Your task to perform on an android device: refresh tabs in the chrome app Image 0: 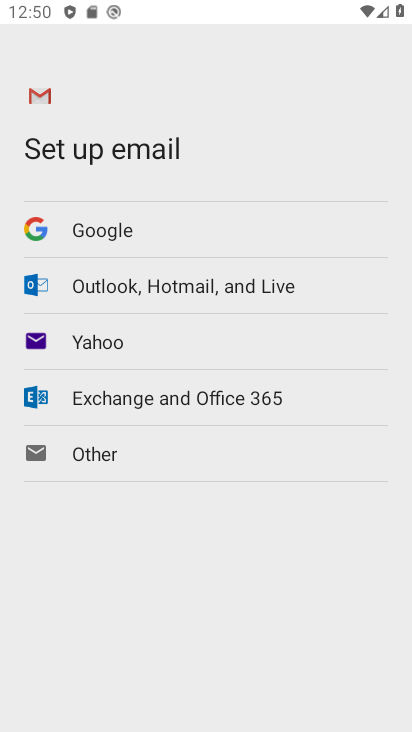
Step 0: press home button
Your task to perform on an android device: refresh tabs in the chrome app Image 1: 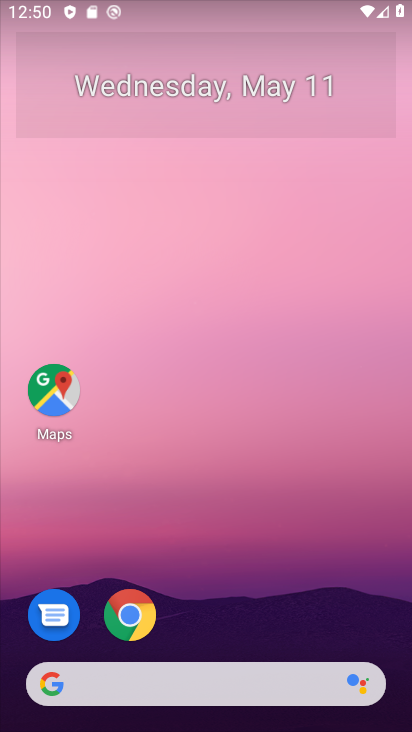
Step 1: click (134, 607)
Your task to perform on an android device: refresh tabs in the chrome app Image 2: 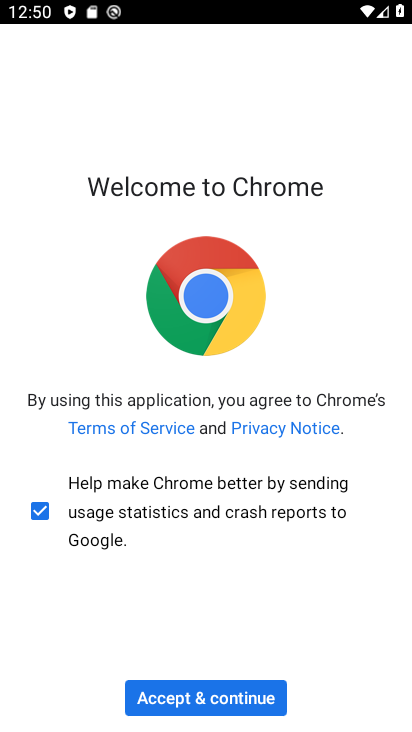
Step 2: click (202, 695)
Your task to perform on an android device: refresh tabs in the chrome app Image 3: 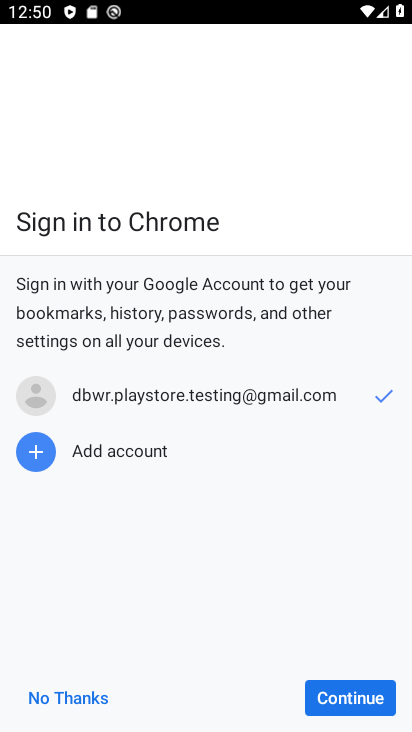
Step 3: click (334, 694)
Your task to perform on an android device: refresh tabs in the chrome app Image 4: 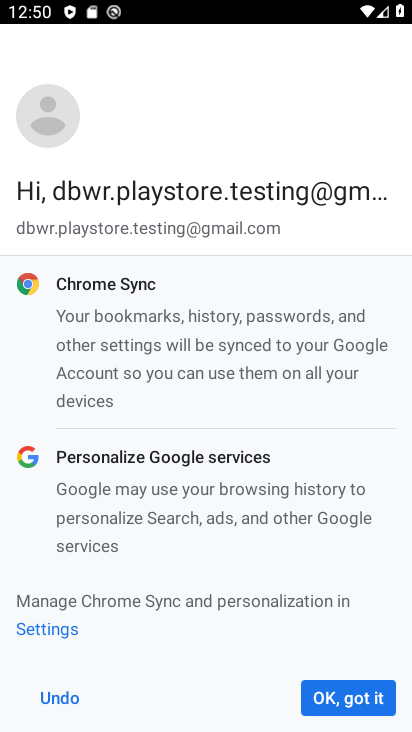
Step 4: click (348, 684)
Your task to perform on an android device: refresh tabs in the chrome app Image 5: 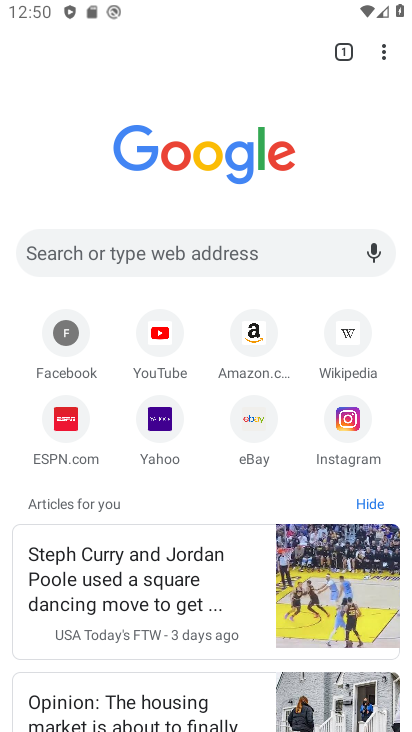
Step 5: click (382, 61)
Your task to perform on an android device: refresh tabs in the chrome app Image 6: 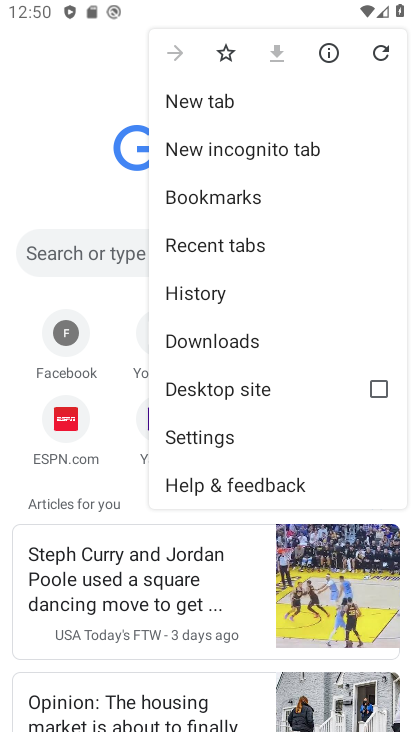
Step 6: click (384, 51)
Your task to perform on an android device: refresh tabs in the chrome app Image 7: 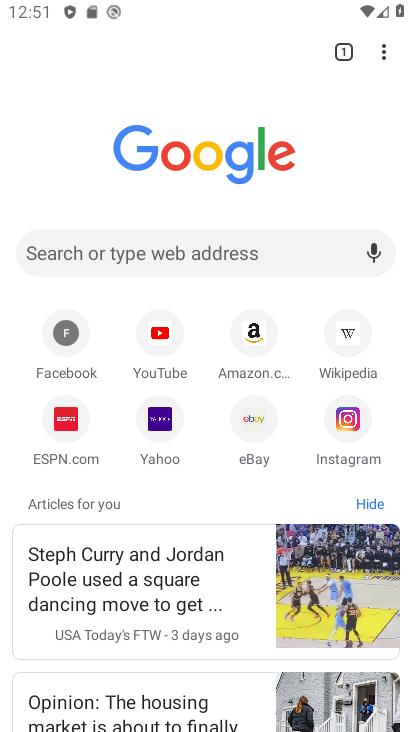
Step 7: task complete